Your task to perform on an android device: change notification settings in the gmail app Image 0: 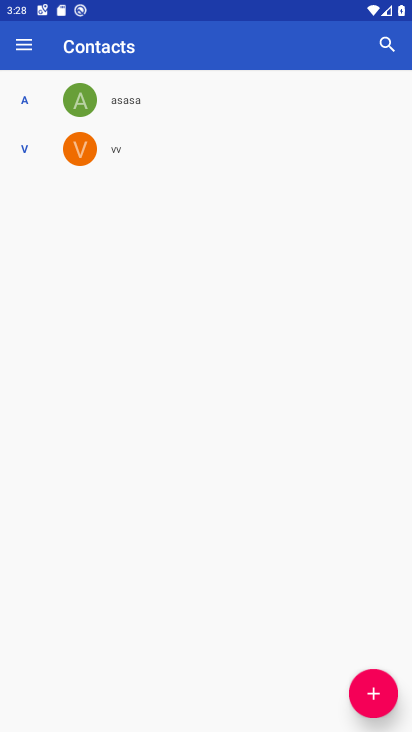
Step 0: press home button
Your task to perform on an android device: change notification settings in the gmail app Image 1: 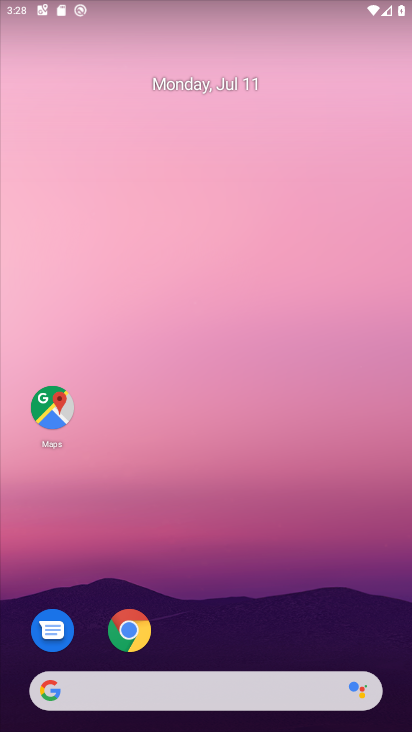
Step 1: drag from (215, 629) to (191, 105)
Your task to perform on an android device: change notification settings in the gmail app Image 2: 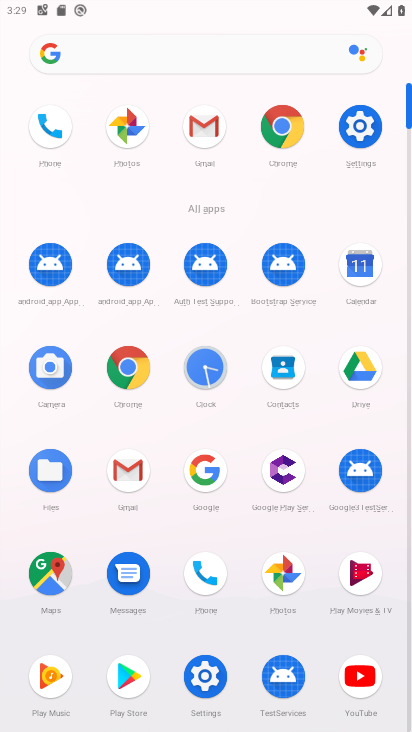
Step 2: click (200, 123)
Your task to perform on an android device: change notification settings in the gmail app Image 3: 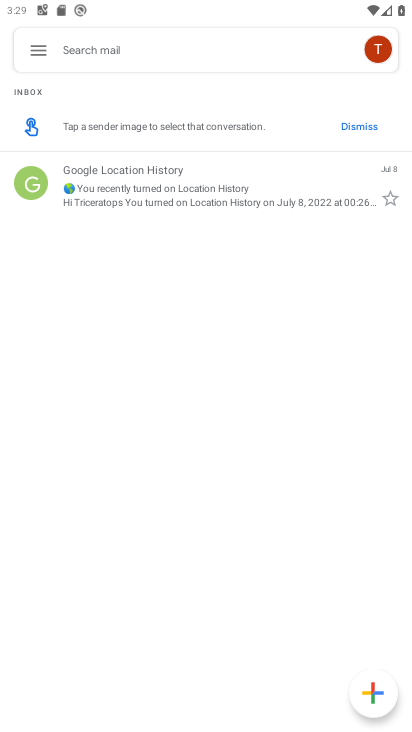
Step 3: click (35, 39)
Your task to perform on an android device: change notification settings in the gmail app Image 4: 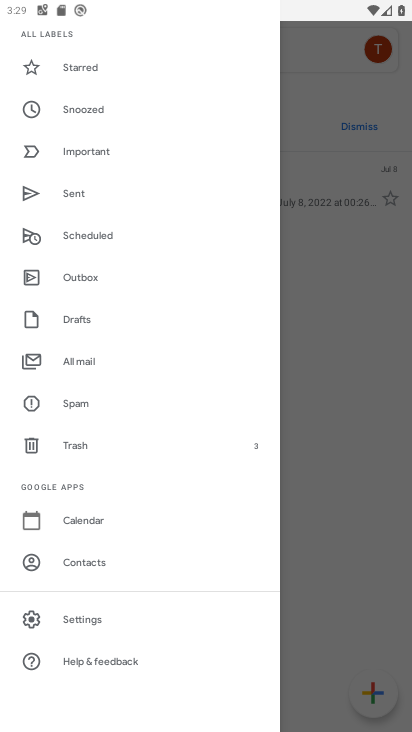
Step 4: click (117, 615)
Your task to perform on an android device: change notification settings in the gmail app Image 5: 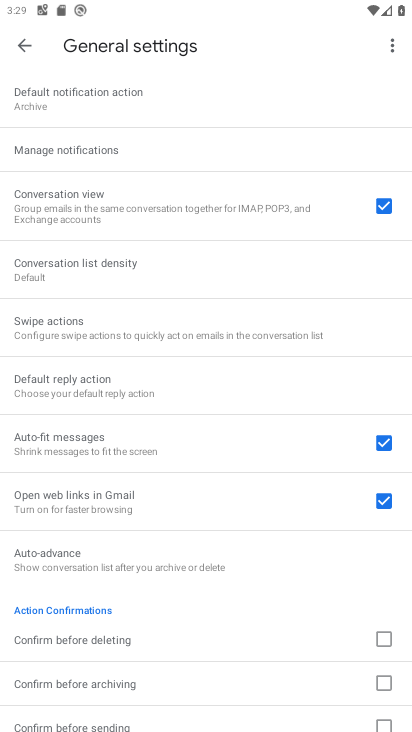
Step 5: click (95, 140)
Your task to perform on an android device: change notification settings in the gmail app Image 6: 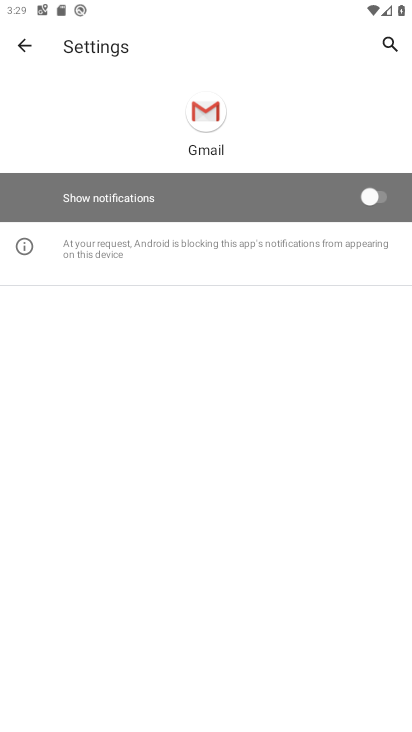
Step 6: click (360, 194)
Your task to perform on an android device: change notification settings in the gmail app Image 7: 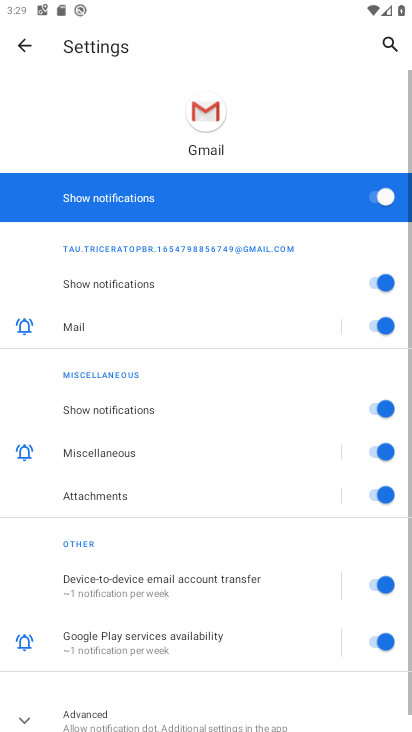
Step 7: task complete